Your task to perform on an android device: open sync settings in chrome Image 0: 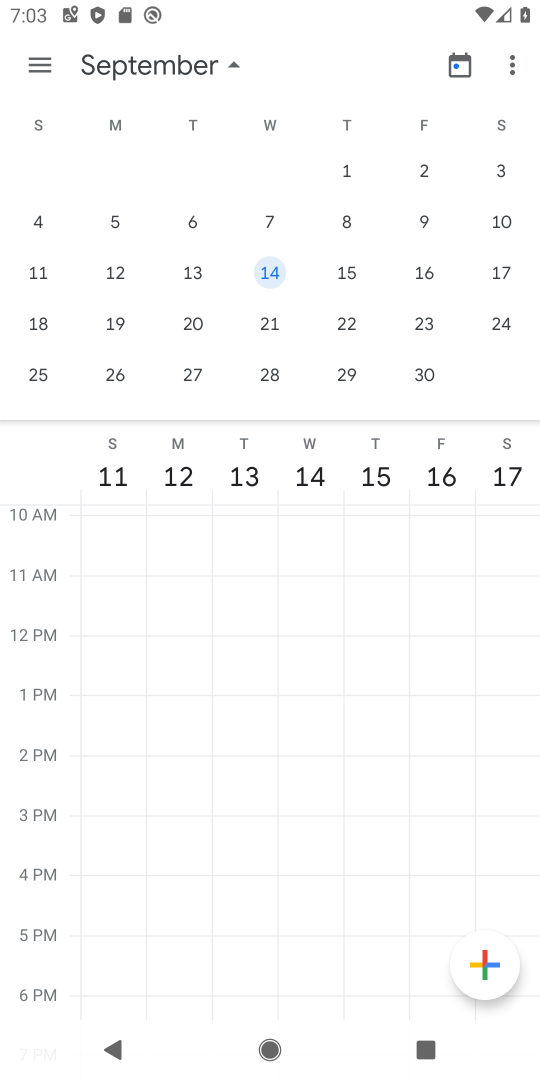
Step 0: press home button
Your task to perform on an android device: open sync settings in chrome Image 1: 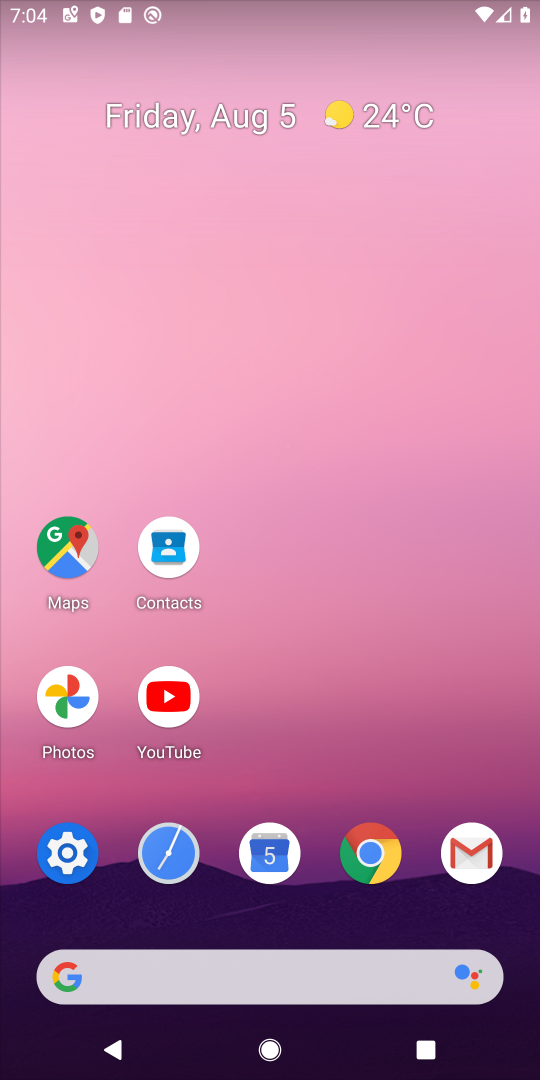
Step 1: click (369, 852)
Your task to perform on an android device: open sync settings in chrome Image 2: 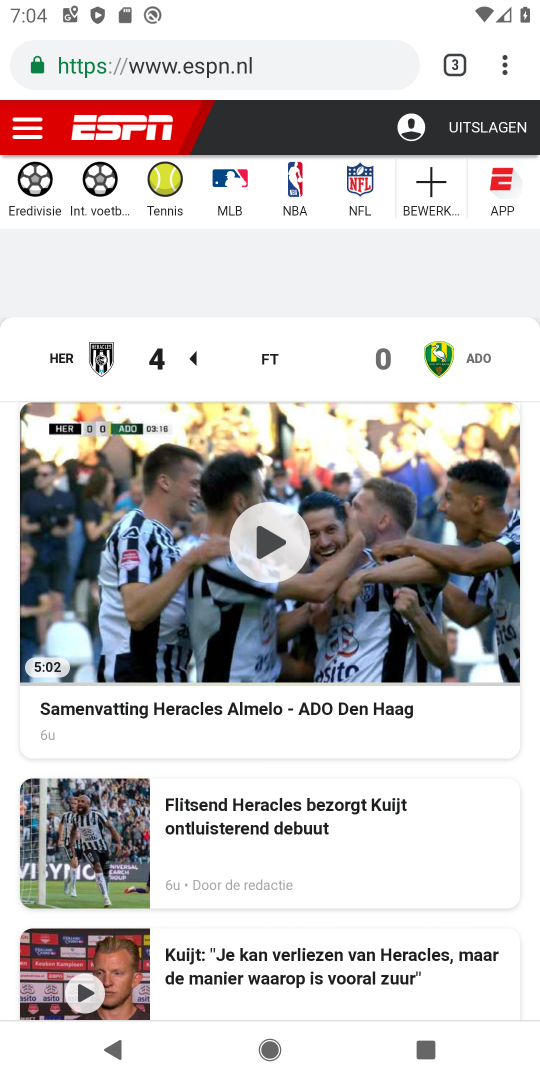
Step 2: click (512, 64)
Your task to perform on an android device: open sync settings in chrome Image 3: 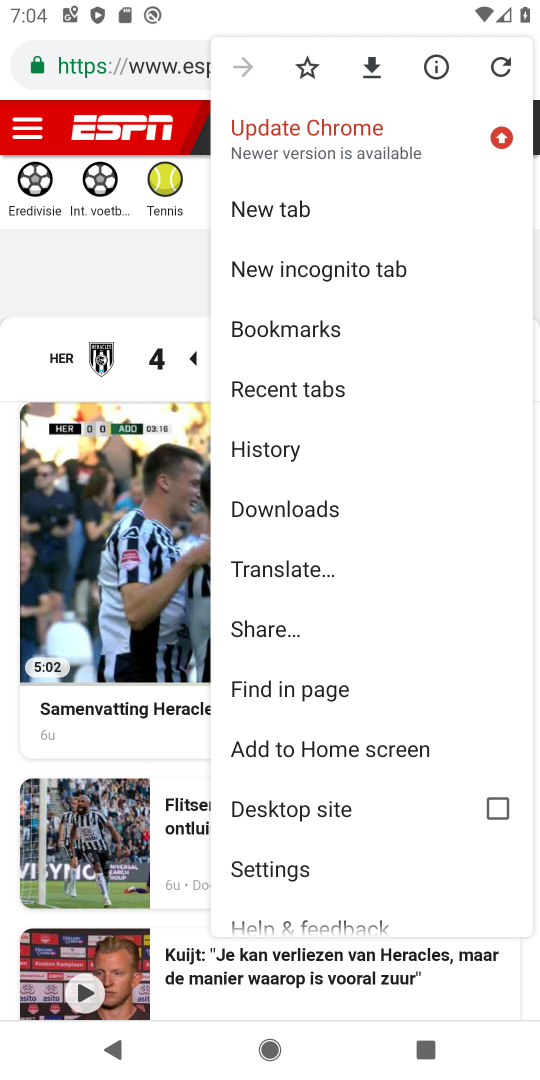
Step 3: click (278, 865)
Your task to perform on an android device: open sync settings in chrome Image 4: 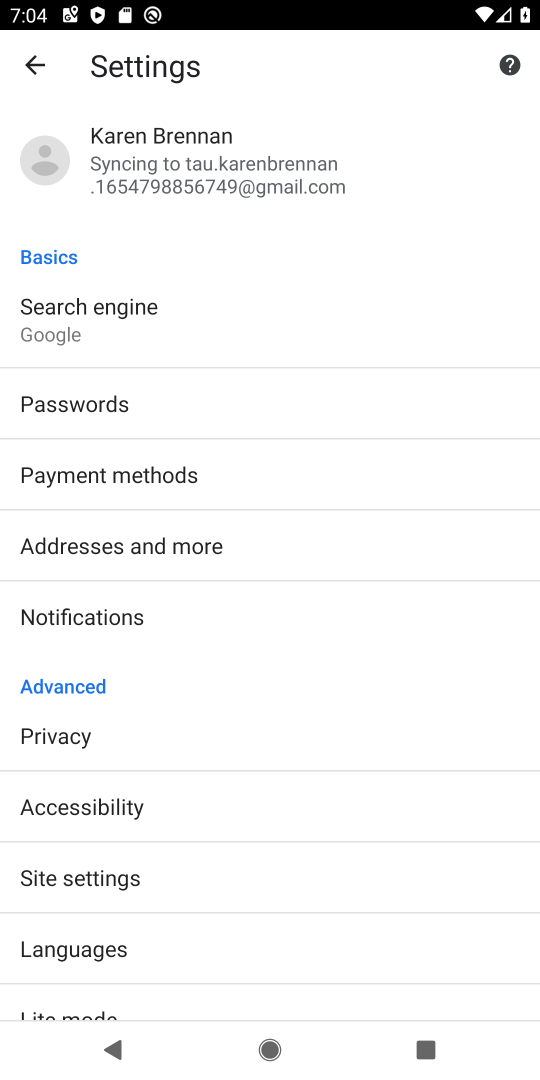
Step 4: click (150, 151)
Your task to perform on an android device: open sync settings in chrome Image 5: 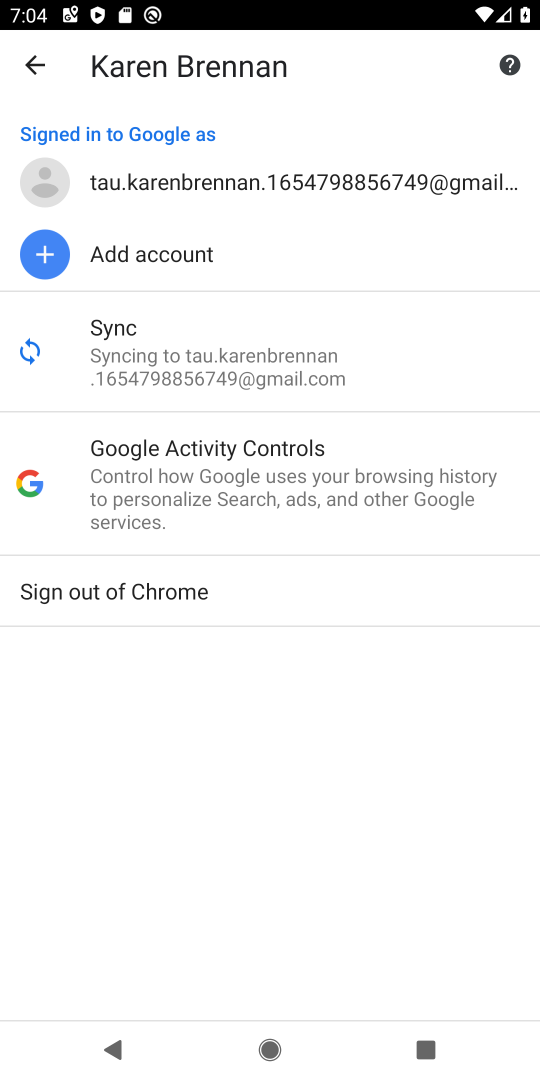
Step 5: click (119, 328)
Your task to perform on an android device: open sync settings in chrome Image 6: 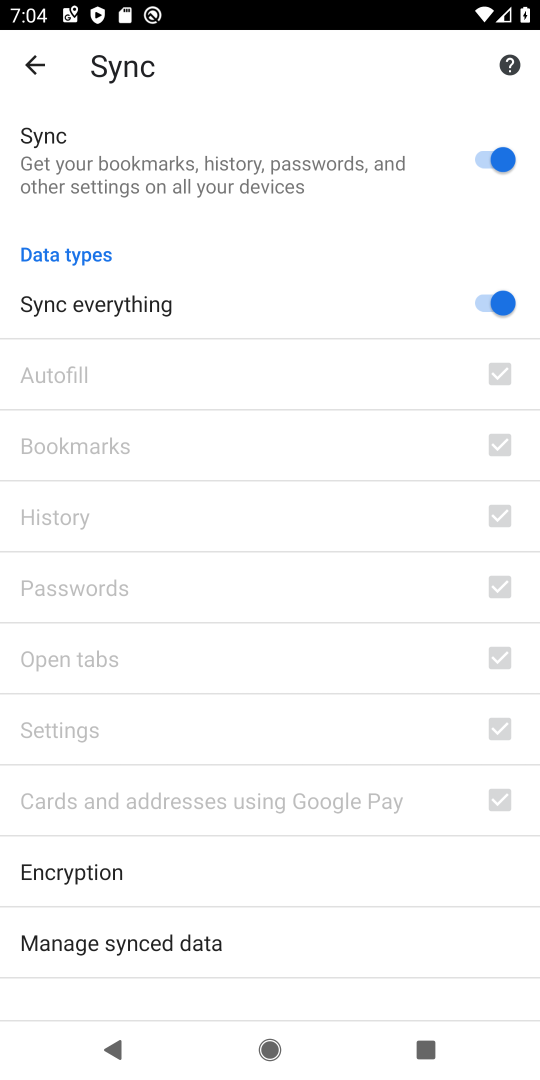
Step 6: task complete